Your task to perform on an android device: Turn on the flashlight Image 0: 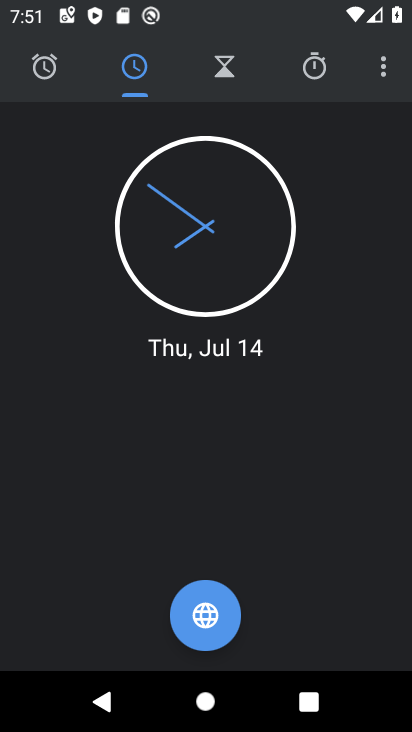
Step 0: press home button
Your task to perform on an android device: Turn on the flashlight Image 1: 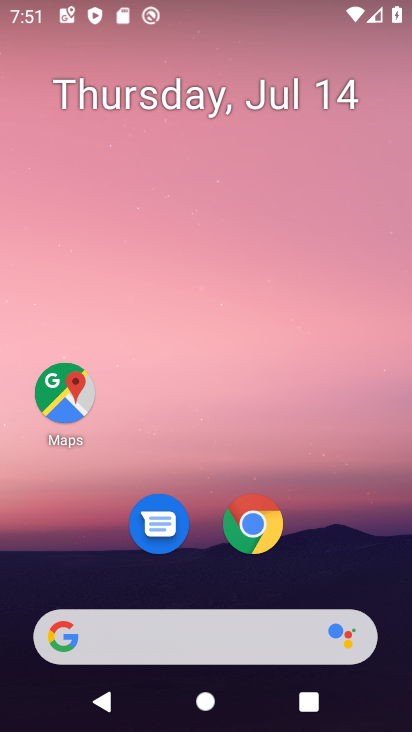
Step 1: drag from (324, 550) to (309, 2)
Your task to perform on an android device: Turn on the flashlight Image 2: 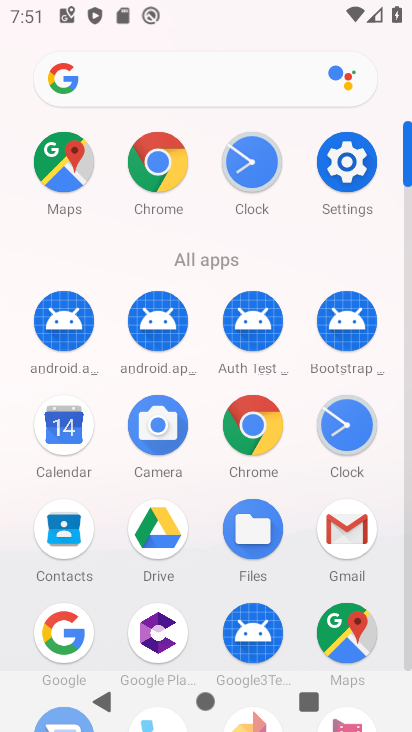
Step 2: click (333, 162)
Your task to perform on an android device: Turn on the flashlight Image 3: 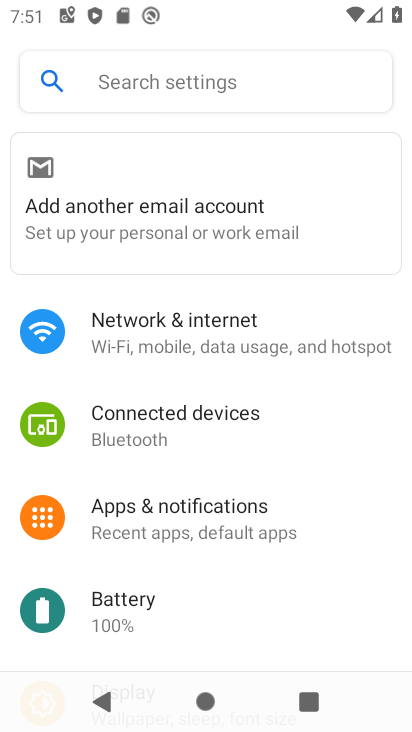
Step 3: click (265, 91)
Your task to perform on an android device: Turn on the flashlight Image 4: 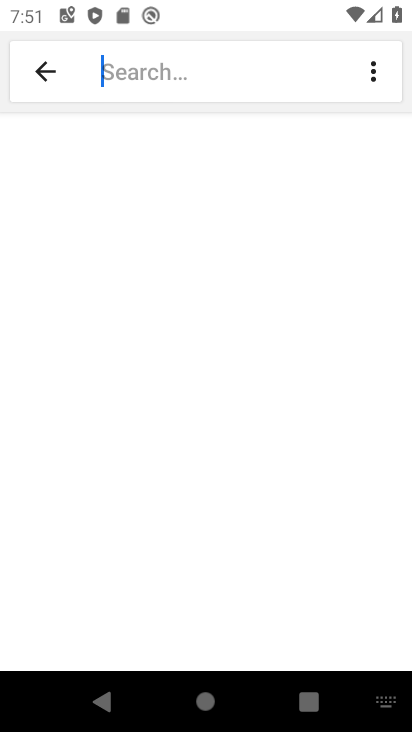
Step 4: type "Flashlight"
Your task to perform on an android device: Turn on the flashlight Image 5: 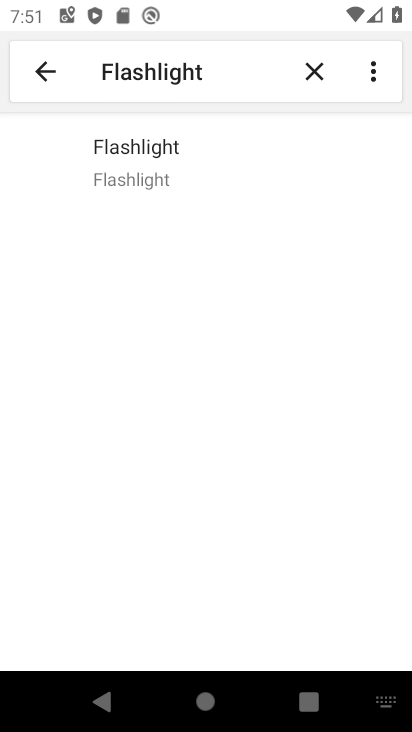
Step 5: click (143, 167)
Your task to perform on an android device: Turn on the flashlight Image 6: 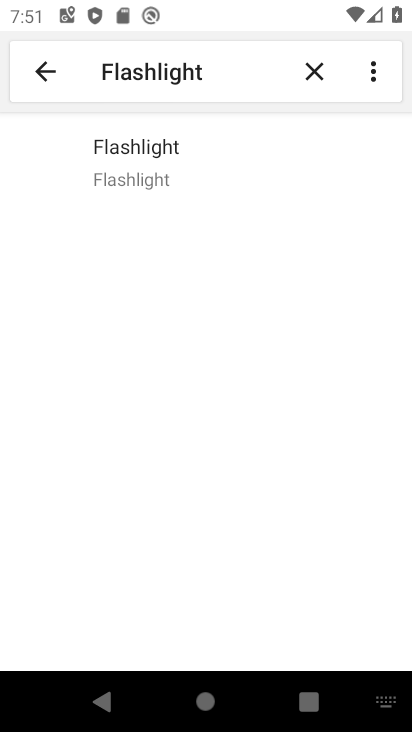
Step 6: click (143, 168)
Your task to perform on an android device: Turn on the flashlight Image 7: 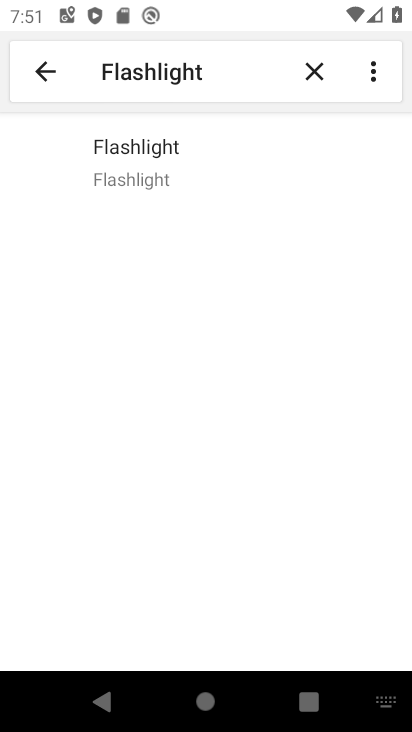
Step 7: task complete